Your task to perform on an android device: turn vacation reply on in the gmail app Image 0: 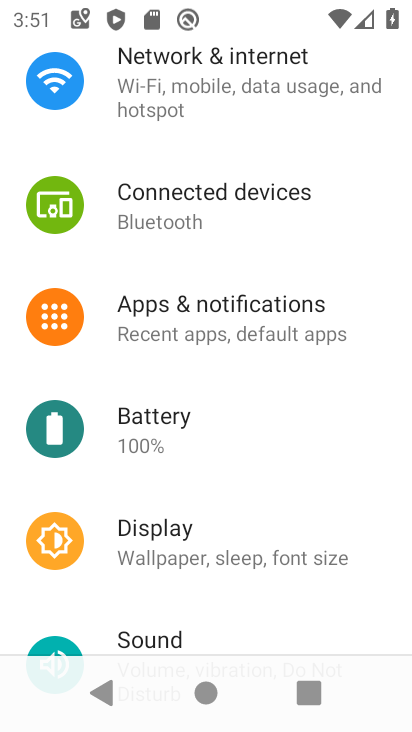
Step 0: press home button
Your task to perform on an android device: turn vacation reply on in the gmail app Image 1: 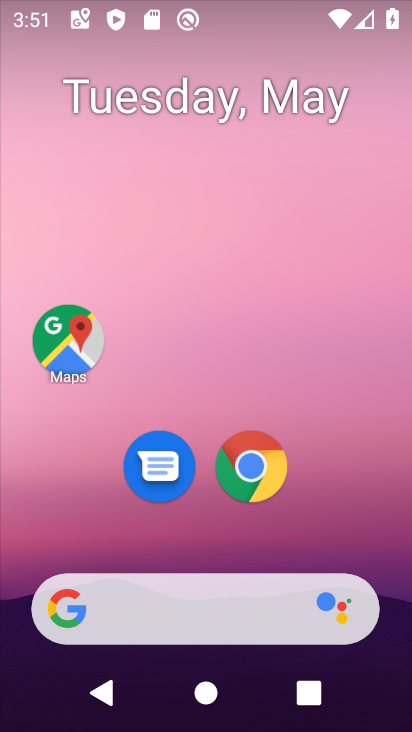
Step 1: drag from (152, 721) to (189, 1)
Your task to perform on an android device: turn vacation reply on in the gmail app Image 2: 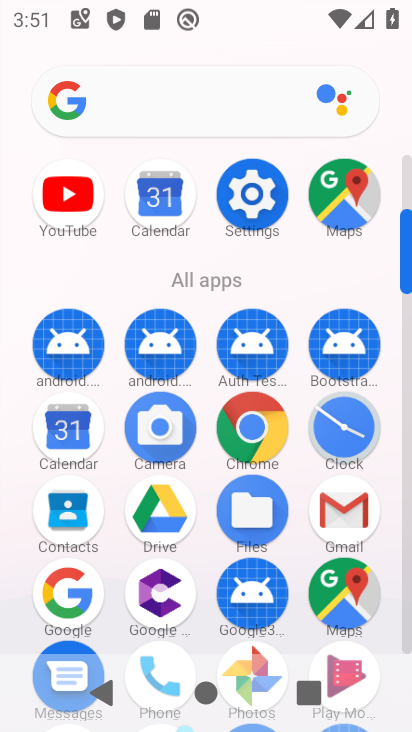
Step 2: drag from (110, 569) to (112, 180)
Your task to perform on an android device: turn vacation reply on in the gmail app Image 3: 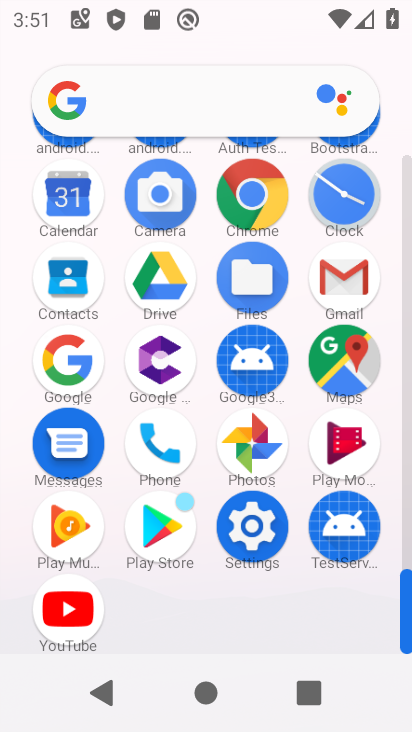
Step 3: click (341, 290)
Your task to perform on an android device: turn vacation reply on in the gmail app Image 4: 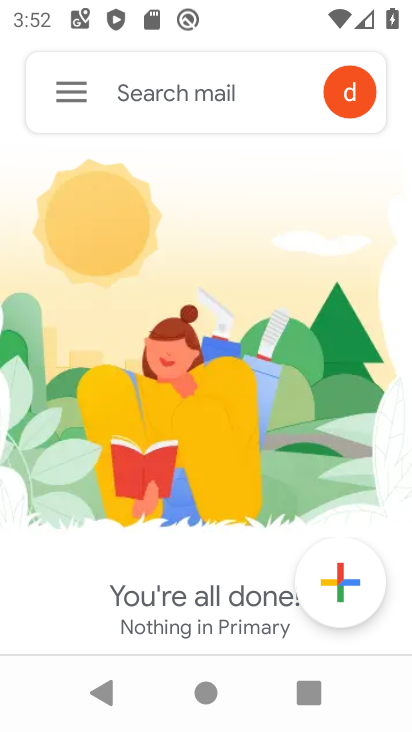
Step 4: click (66, 90)
Your task to perform on an android device: turn vacation reply on in the gmail app Image 5: 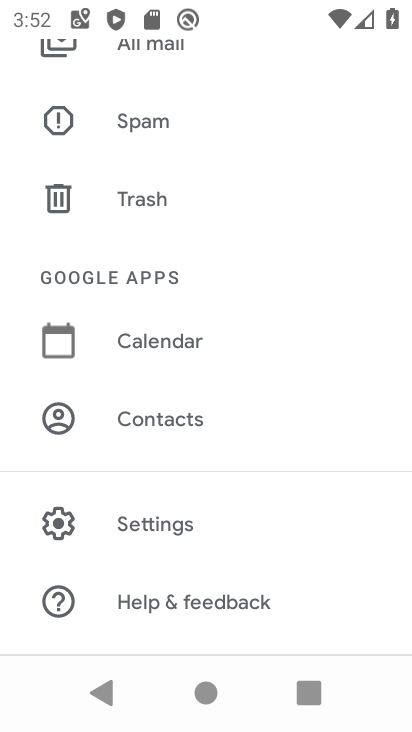
Step 5: click (170, 536)
Your task to perform on an android device: turn vacation reply on in the gmail app Image 6: 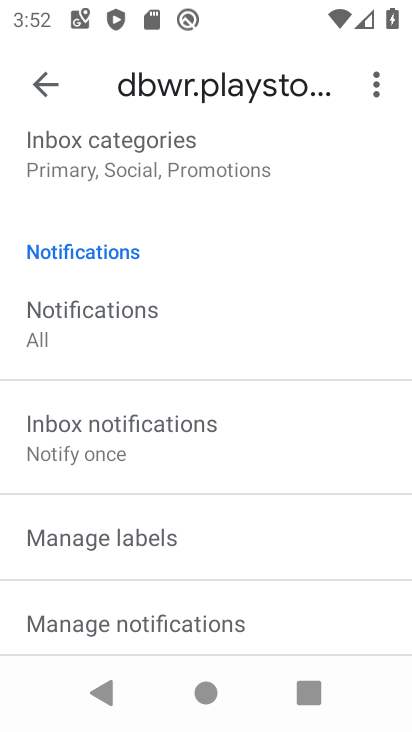
Step 6: drag from (272, 573) to (216, 221)
Your task to perform on an android device: turn vacation reply on in the gmail app Image 7: 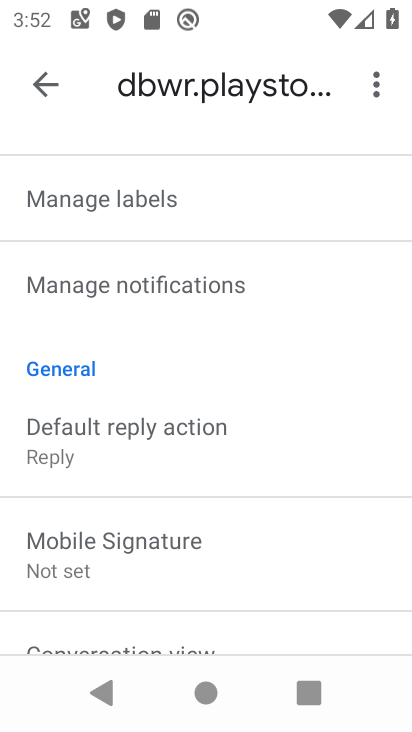
Step 7: drag from (285, 567) to (291, 205)
Your task to perform on an android device: turn vacation reply on in the gmail app Image 8: 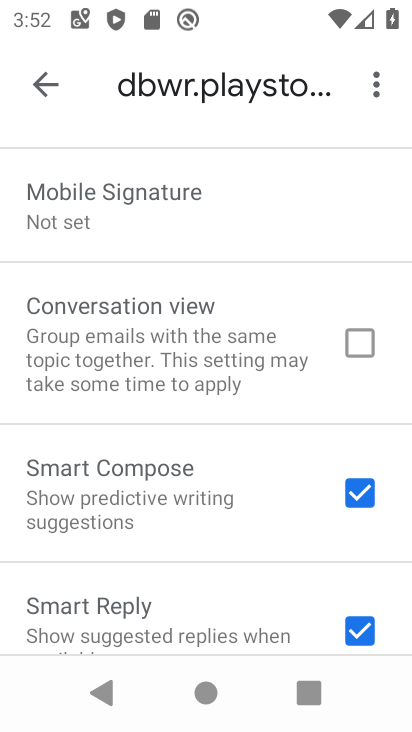
Step 8: drag from (265, 570) to (279, 263)
Your task to perform on an android device: turn vacation reply on in the gmail app Image 9: 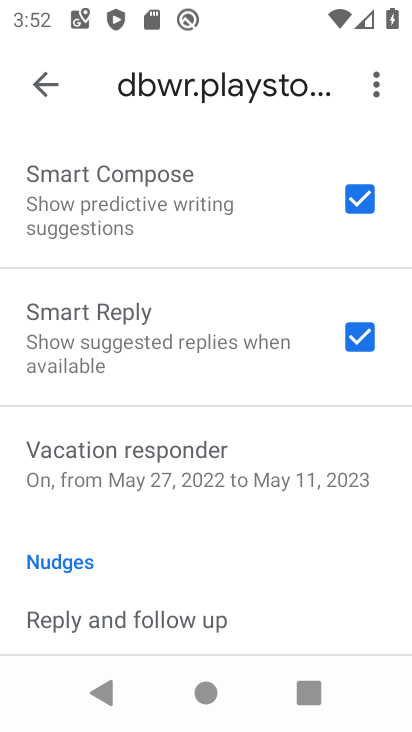
Step 9: click (197, 450)
Your task to perform on an android device: turn vacation reply on in the gmail app Image 10: 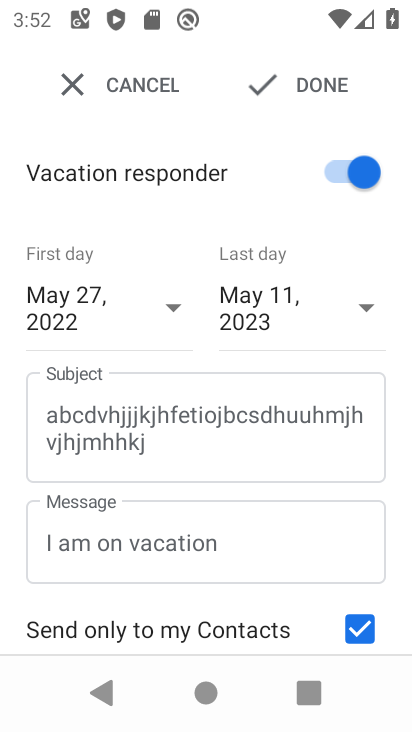
Step 10: task complete